Your task to perform on an android device: turn off translation in the chrome app Image 0: 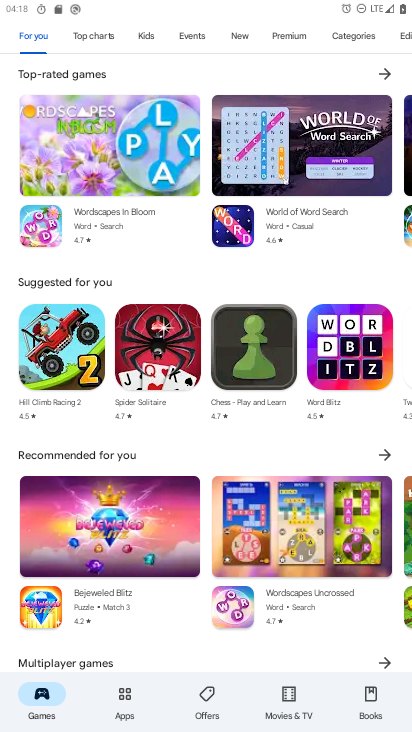
Step 0: press home button
Your task to perform on an android device: turn off translation in the chrome app Image 1: 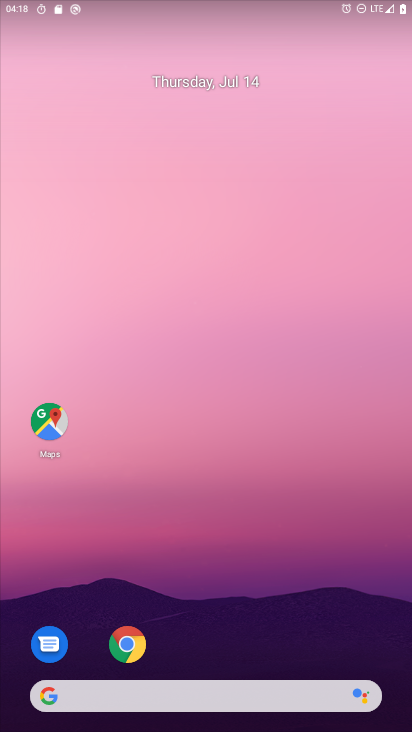
Step 1: drag from (243, 414) to (267, 0)
Your task to perform on an android device: turn off translation in the chrome app Image 2: 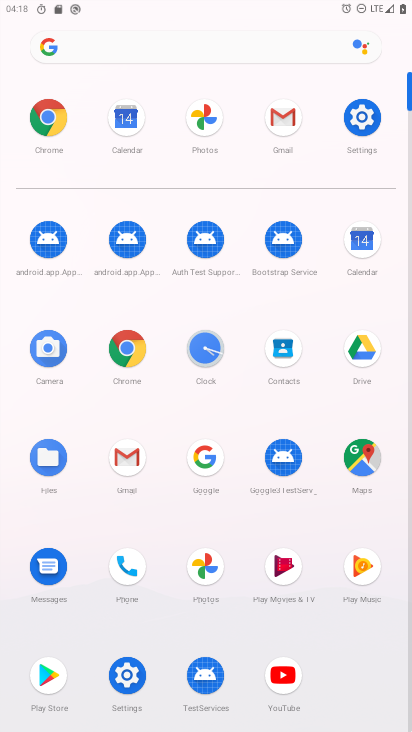
Step 2: click (129, 349)
Your task to perform on an android device: turn off translation in the chrome app Image 3: 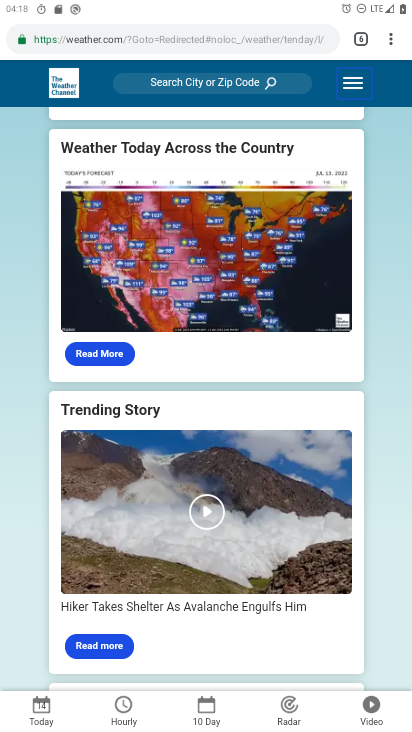
Step 3: drag from (390, 37) to (251, 475)
Your task to perform on an android device: turn off translation in the chrome app Image 4: 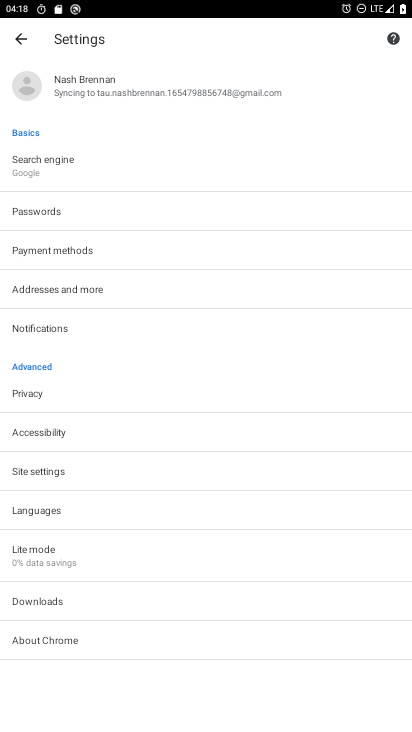
Step 4: click (44, 516)
Your task to perform on an android device: turn off translation in the chrome app Image 5: 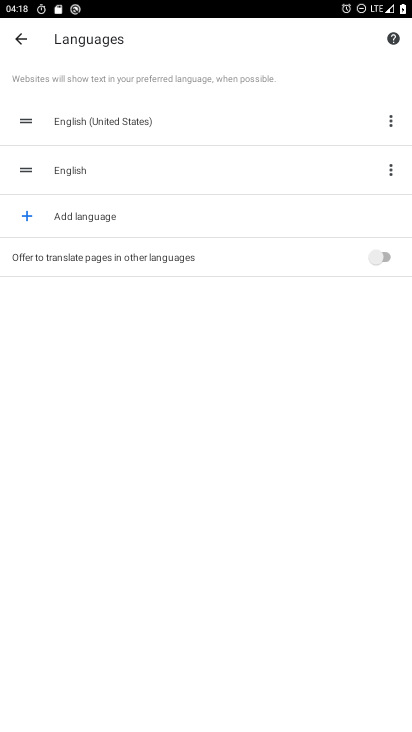
Step 5: task complete